Your task to perform on an android device: turn on improve location accuracy Image 0: 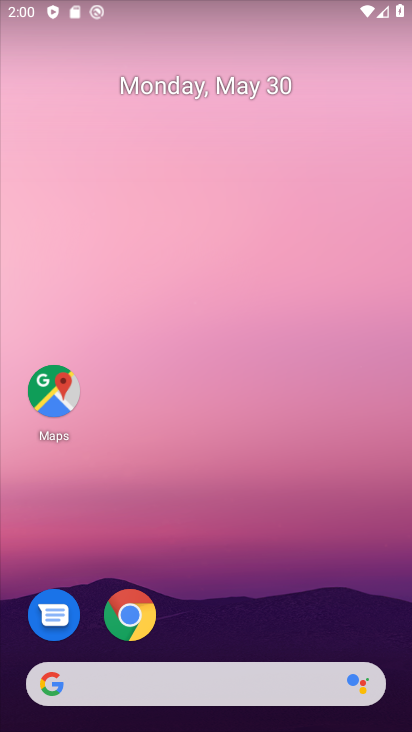
Step 0: drag from (203, 575) to (299, 133)
Your task to perform on an android device: turn on improve location accuracy Image 1: 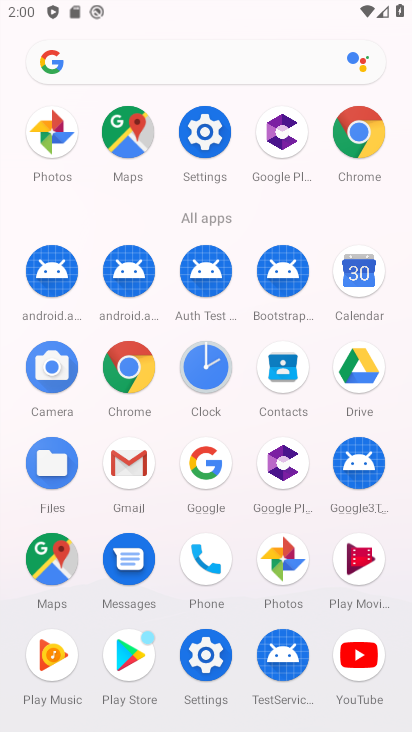
Step 1: drag from (208, 627) to (264, 416)
Your task to perform on an android device: turn on improve location accuracy Image 2: 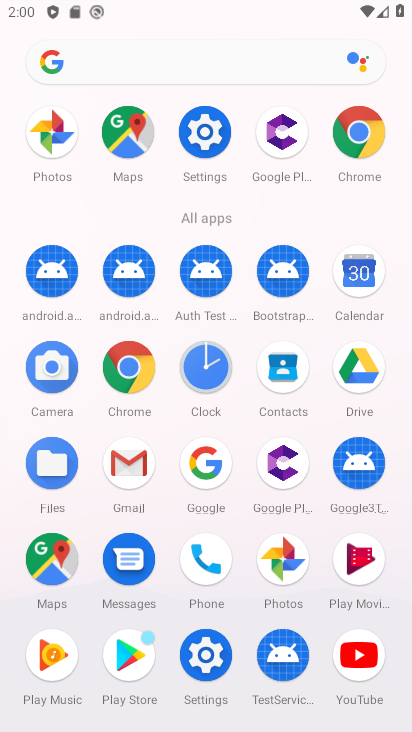
Step 2: click (202, 666)
Your task to perform on an android device: turn on improve location accuracy Image 3: 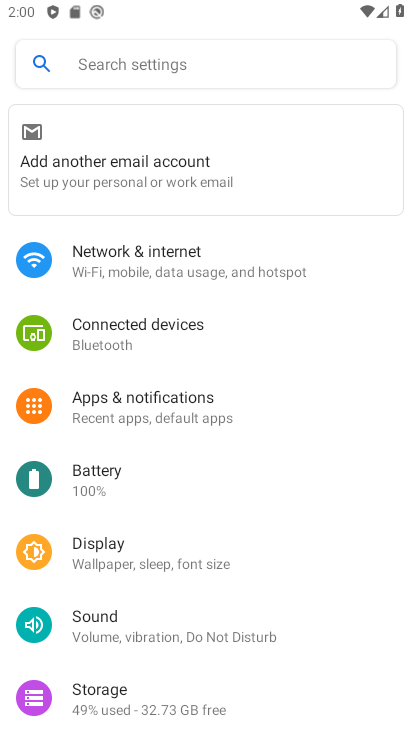
Step 3: drag from (226, 675) to (306, 376)
Your task to perform on an android device: turn on improve location accuracy Image 4: 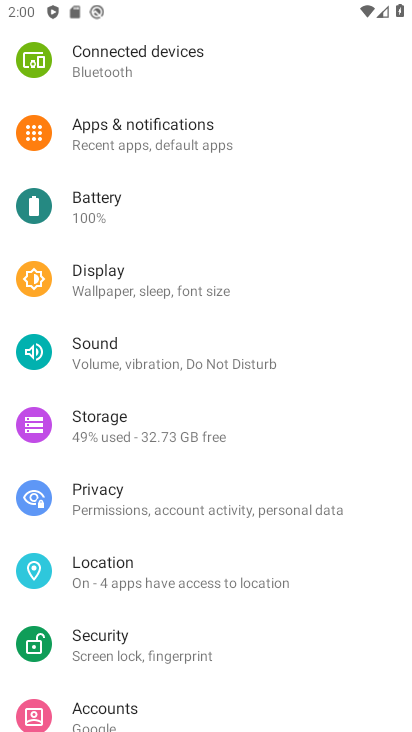
Step 4: click (156, 570)
Your task to perform on an android device: turn on improve location accuracy Image 5: 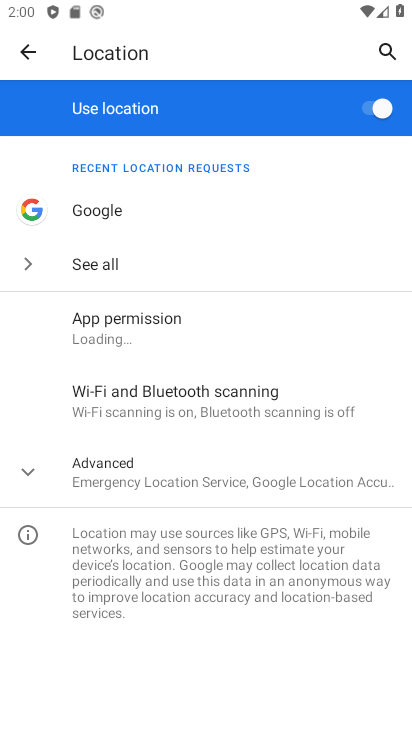
Step 5: click (185, 478)
Your task to perform on an android device: turn on improve location accuracy Image 6: 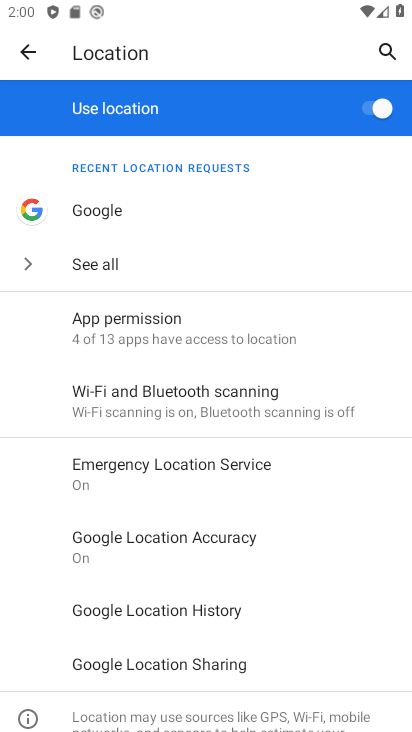
Step 6: click (250, 550)
Your task to perform on an android device: turn on improve location accuracy Image 7: 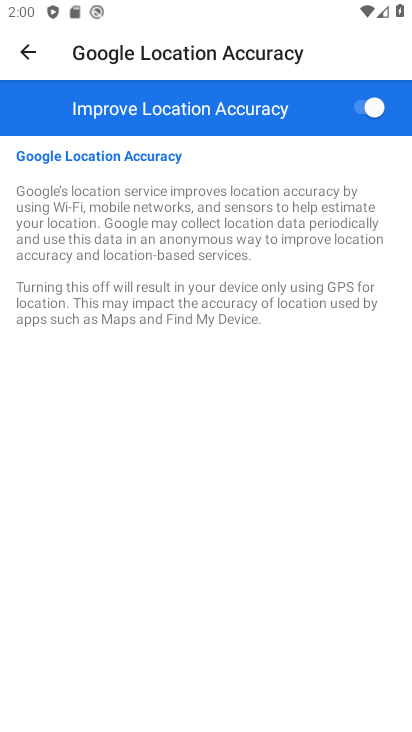
Step 7: task complete